Your task to perform on an android device: Turn off the flashlight Image 0: 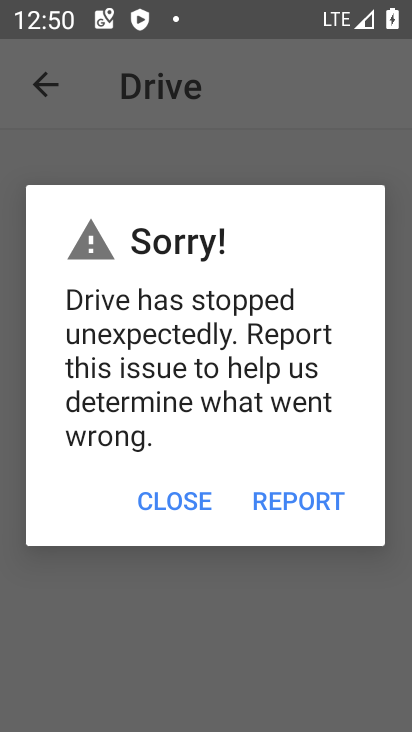
Step 0: drag from (401, 625) to (326, 183)
Your task to perform on an android device: Turn off the flashlight Image 1: 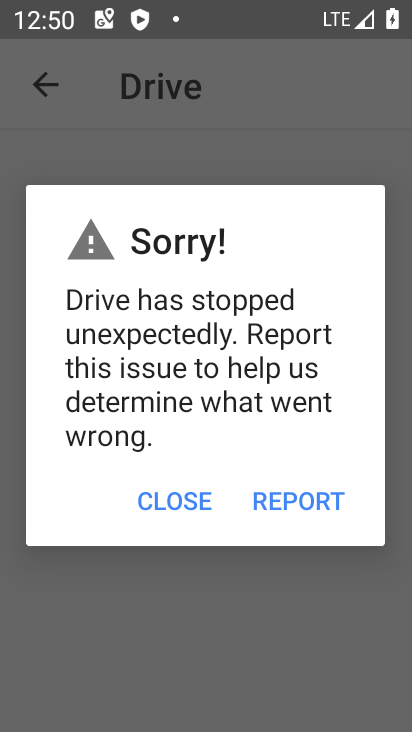
Step 1: press home button
Your task to perform on an android device: Turn off the flashlight Image 2: 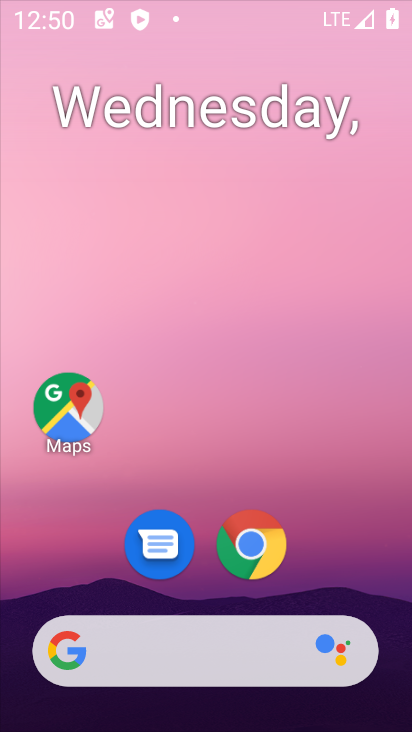
Step 2: drag from (392, 674) to (359, 119)
Your task to perform on an android device: Turn off the flashlight Image 3: 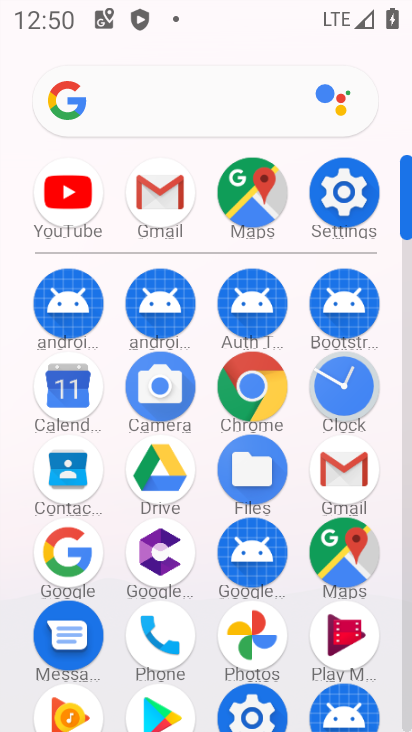
Step 3: click (339, 215)
Your task to perform on an android device: Turn off the flashlight Image 4: 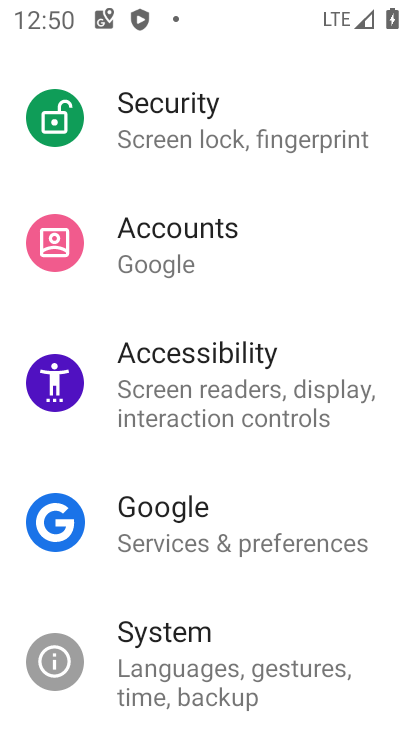
Step 4: task complete